Your task to perform on an android device: Open accessibility settings Image 0: 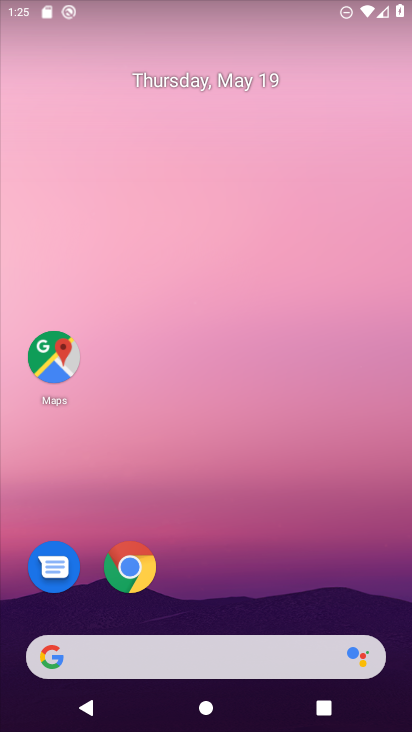
Step 0: drag from (306, 573) to (312, 245)
Your task to perform on an android device: Open accessibility settings Image 1: 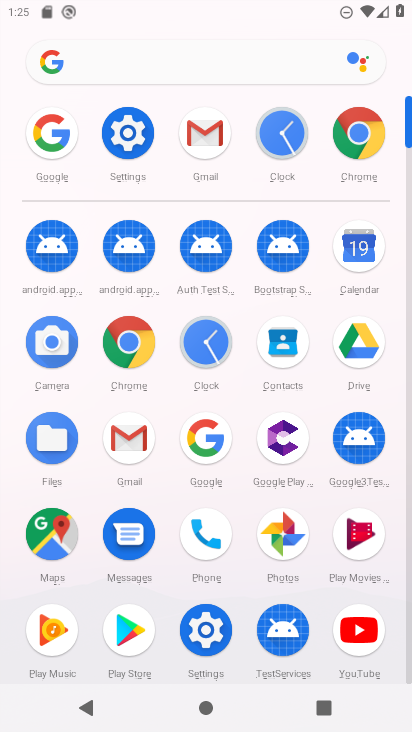
Step 1: click (118, 125)
Your task to perform on an android device: Open accessibility settings Image 2: 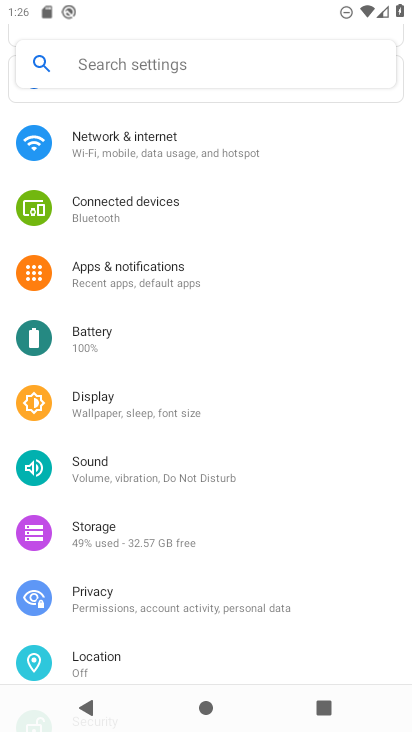
Step 2: drag from (255, 446) to (245, 385)
Your task to perform on an android device: Open accessibility settings Image 3: 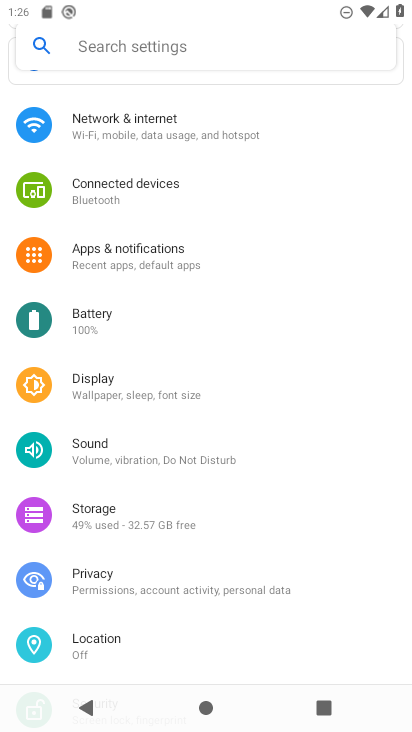
Step 3: drag from (280, 511) to (282, 156)
Your task to perform on an android device: Open accessibility settings Image 4: 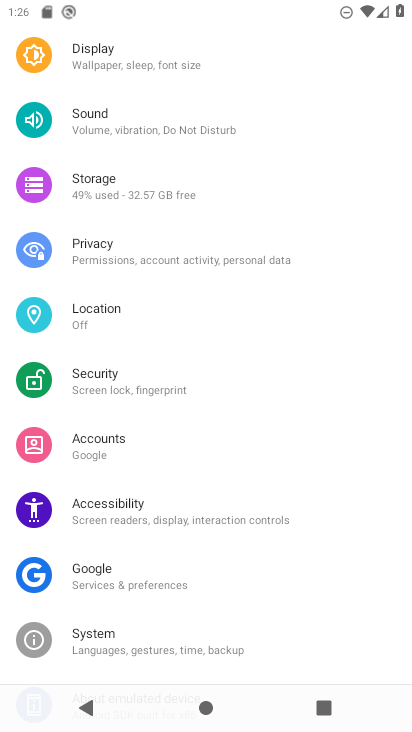
Step 4: click (119, 527)
Your task to perform on an android device: Open accessibility settings Image 5: 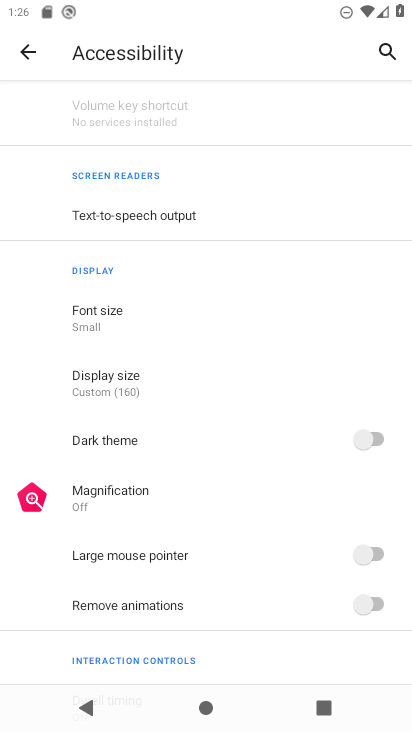
Step 5: task complete